Your task to perform on an android device: Go to CNN.com Image 0: 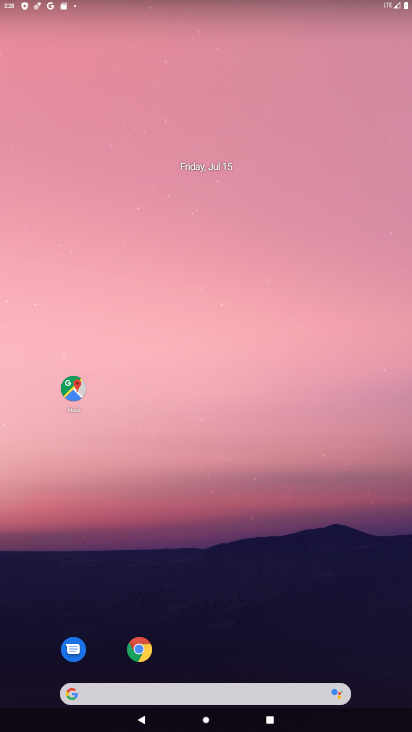
Step 0: click (135, 652)
Your task to perform on an android device: Go to CNN.com Image 1: 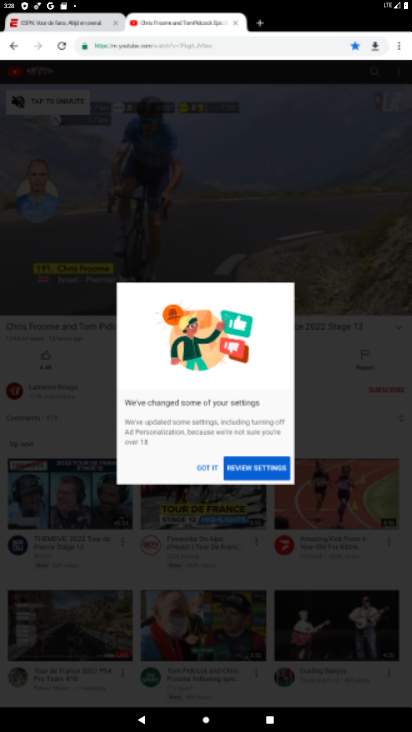
Step 1: click (262, 20)
Your task to perform on an android device: Go to CNN.com Image 2: 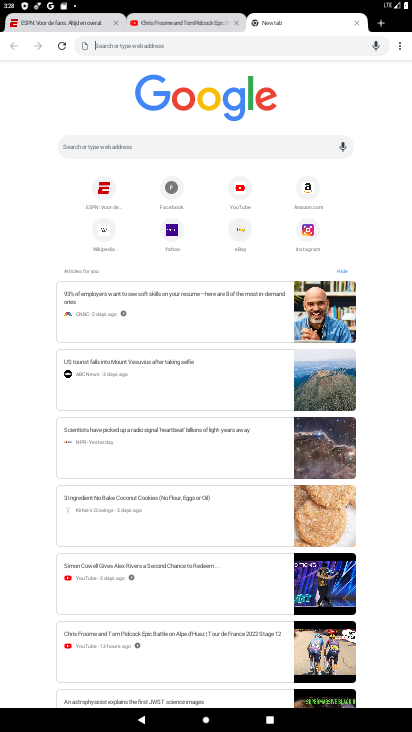
Step 2: click (187, 141)
Your task to perform on an android device: Go to CNN.com Image 3: 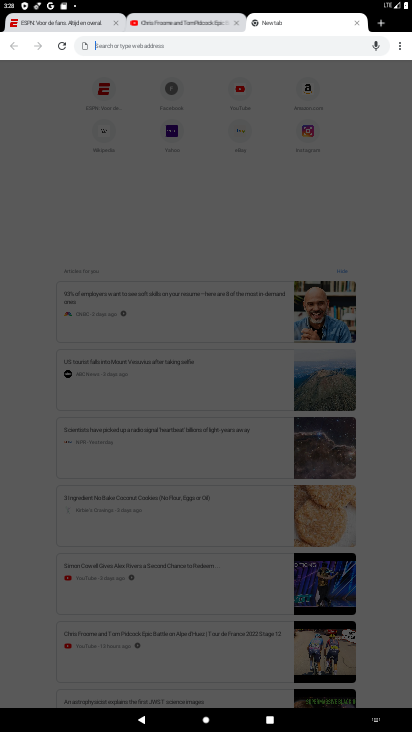
Step 3: type "CNN.com"
Your task to perform on an android device: Go to CNN.com Image 4: 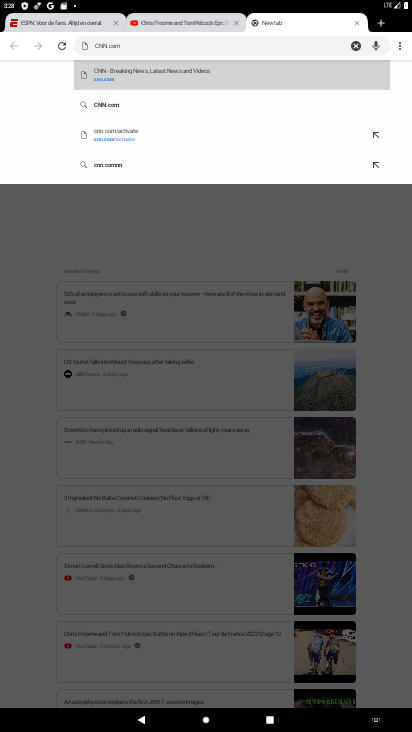
Step 4: click (138, 82)
Your task to perform on an android device: Go to CNN.com Image 5: 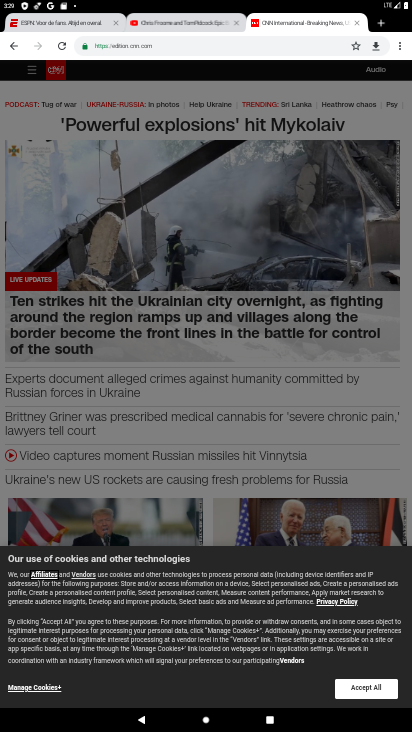
Step 5: task complete